Your task to perform on an android device: snooze an email in the gmail app Image 0: 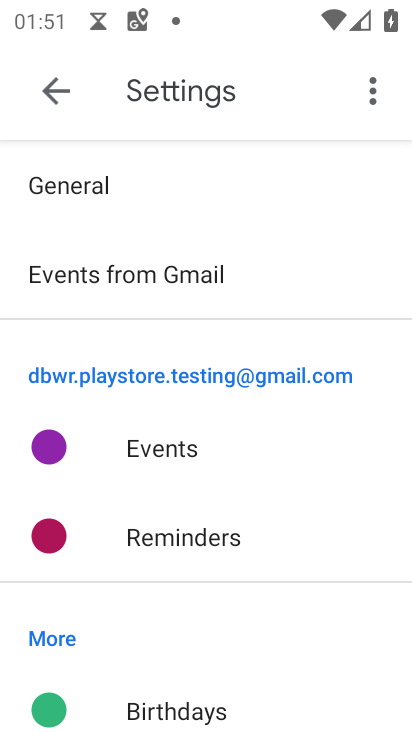
Step 0: press home button
Your task to perform on an android device: snooze an email in the gmail app Image 1: 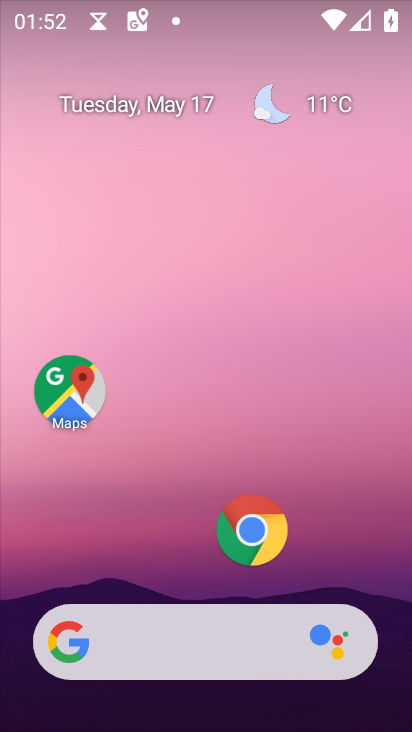
Step 1: drag from (370, 696) to (396, 233)
Your task to perform on an android device: snooze an email in the gmail app Image 2: 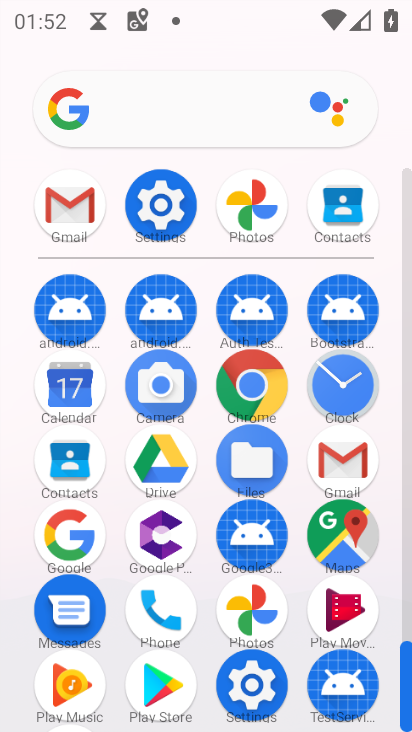
Step 2: click (57, 210)
Your task to perform on an android device: snooze an email in the gmail app Image 3: 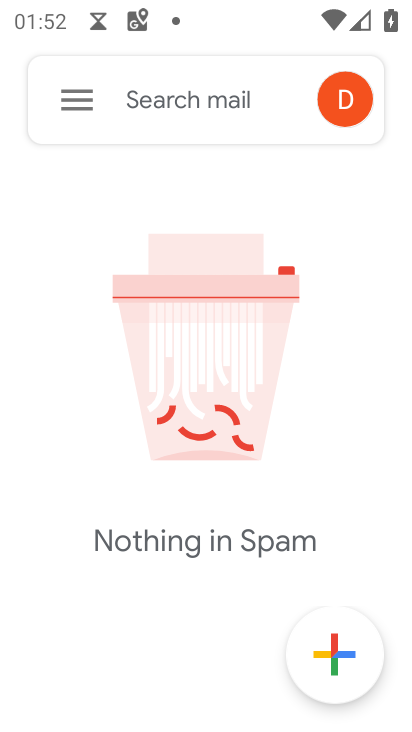
Step 3: click (65, 85)
Your task to perform on an android device: snooze an email in the gmail app Image 4: 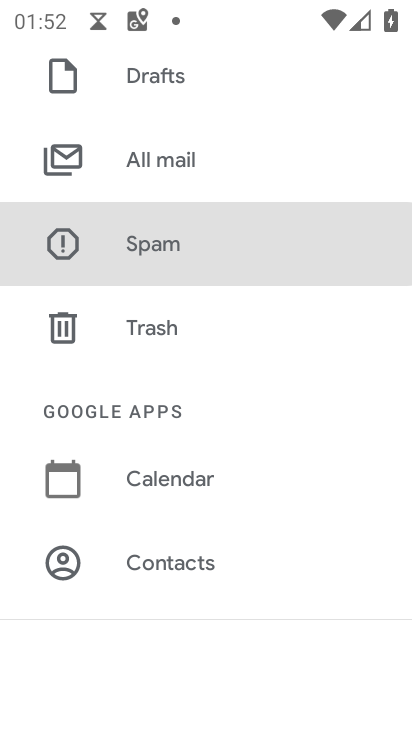
Step 4: drag from (242, 495) to (332, 168)
Your task to perform on an android device: snooze an email in the gmail app Image 5: 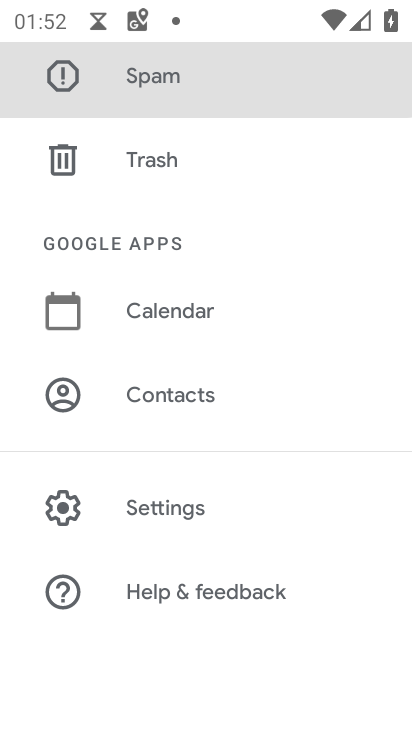
Step 5: click (144, 511)
Your task to perform on an android device: snooze an email in the gmail app Image 6: 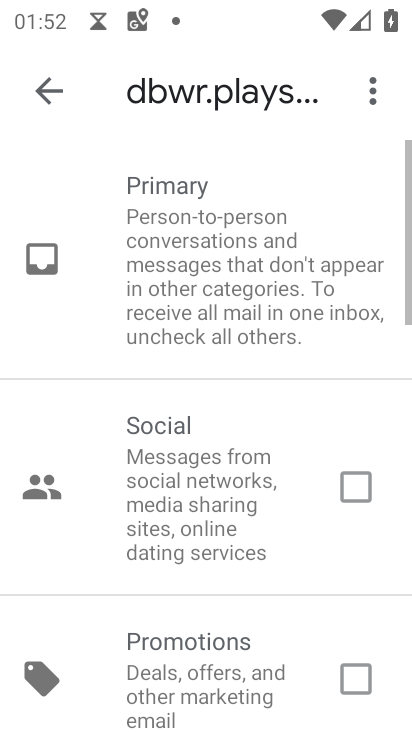
Step 6: task complete